Your task to perform on an android device: turn off javascript in the chrome app Image 0: 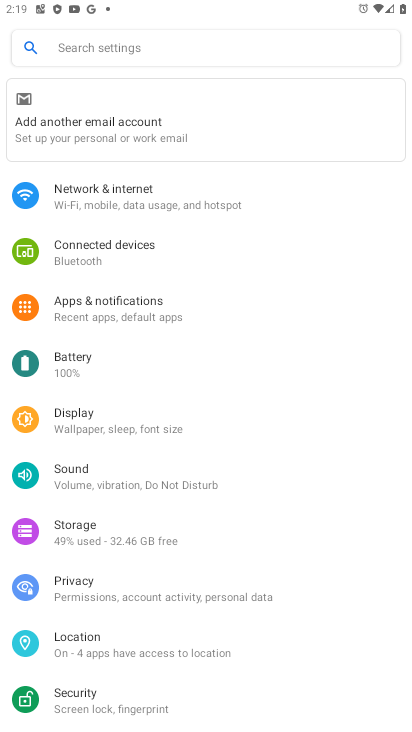
Step 0: press home button
Your task to perform on an android device: turn off javascript in the chrome app Image 1: 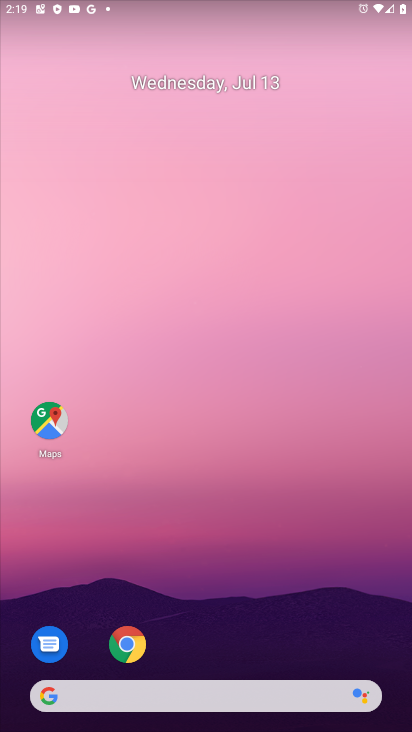
Step 1: click (127, 646)
Your task to perform on an android device: turn off javascript in the chrome app Image 2: 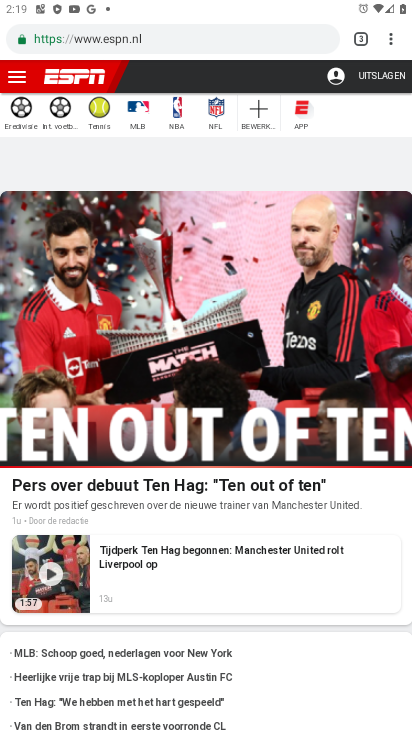
Step 2: drag from (391, 31) to (257, 468)
Your task to perform on an android device: turn off javascript in the chrome app Image 3: 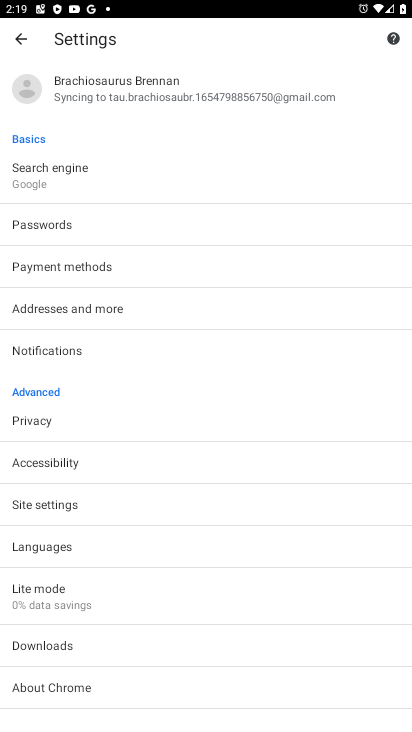
Step 3: click (33, 513)
Your task to perform on an android device: turn off javascript in the chrome app Image 4: 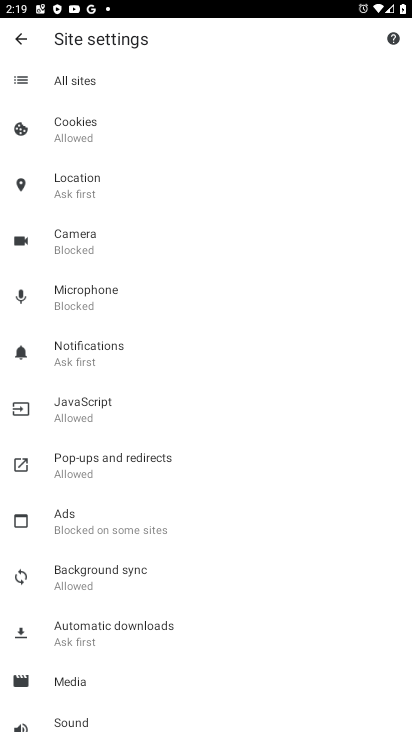
Step 4: click (123, 412)
Your task to perform on an android device: turn off javascript in the chrome app Image 5: 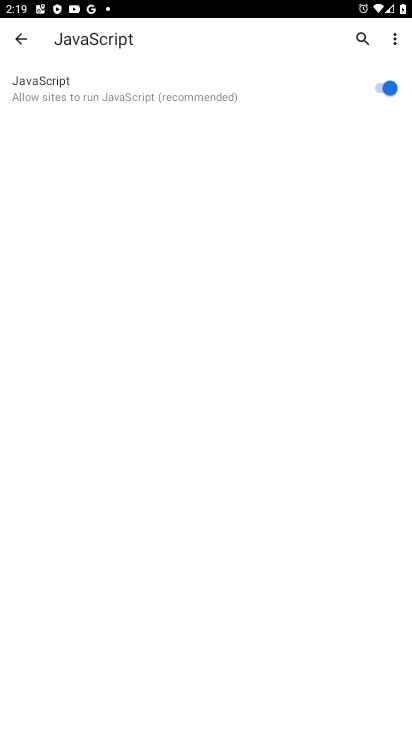
Step 5: click (387, 84)
Your task to perform on an android device: turn off javascript in the chrome app Image 6: 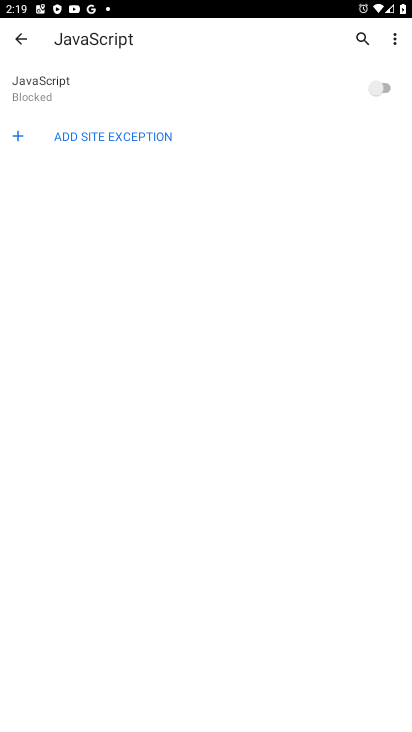
Step 6: task complete